Your task to perform on an android device: toggle javascript in the chrome app Image 0: 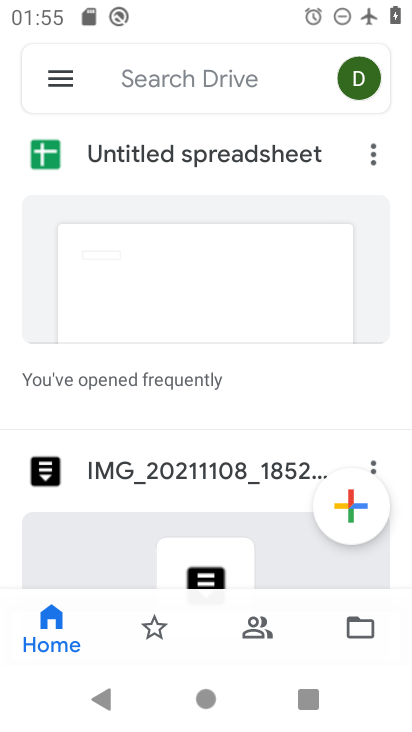
Step 0: press home button
Your task to perform on an android device: toggle javascript in the chrome app Image 1: 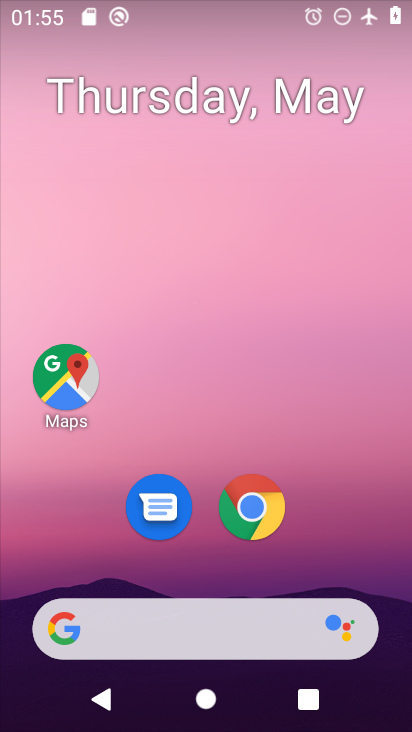
Step 1: click (254, 517)
Your task to perform on an android device: toggle javascript in the chrome app Image 2: 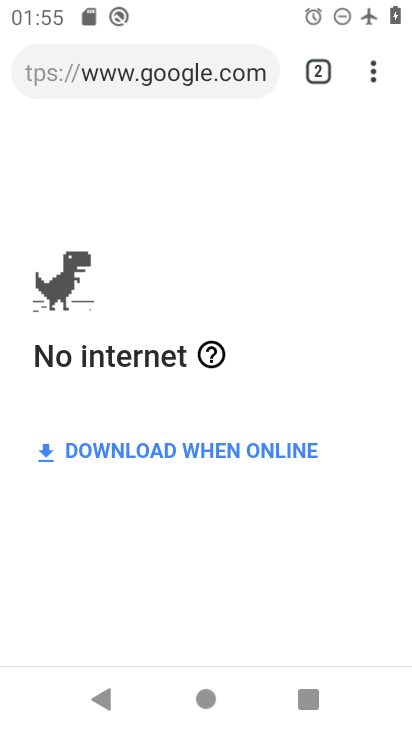
Step 2: click (380, 70)
Your task to perform on an android device: toggle javascript in the chrome app Image 3: 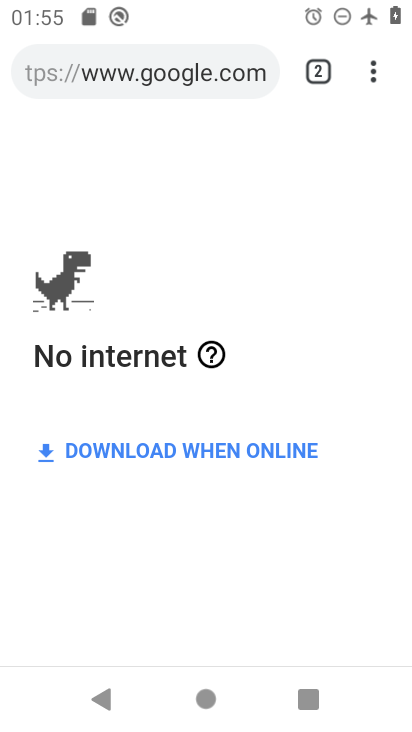
Step 3: click (373, 81)
Your task to perform on an android device: toggle javascript in the chrome app Image 4: 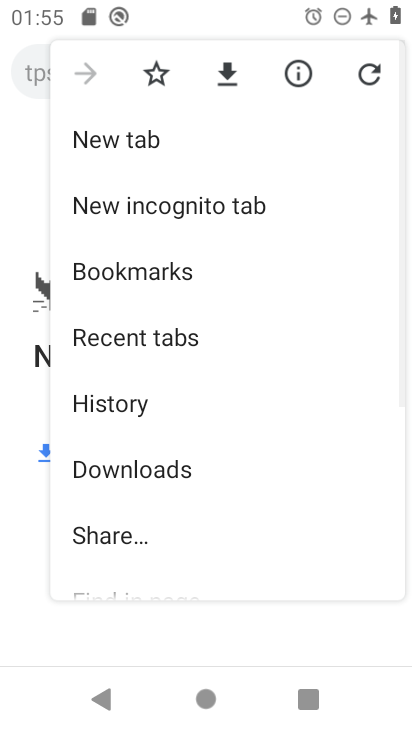
Step 4: drag from (82, 548) to (76, 286)
Your task to perform on an android device: toggle javascript in the chrome app Image 5: 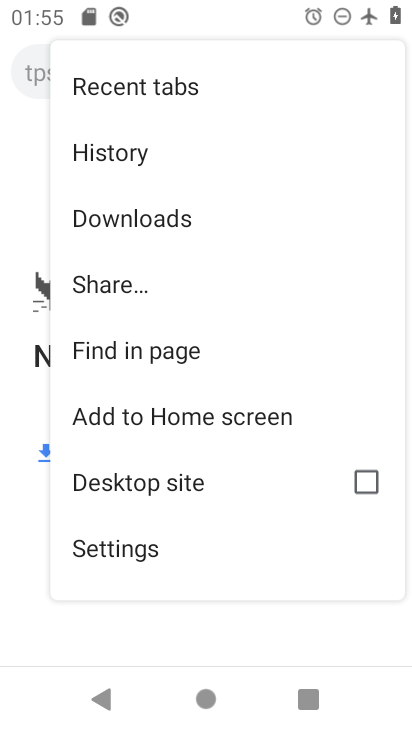
Step 5: click (107, 552)
Your task to perform on an android device: toggle javascript in the chrome app Image 6: 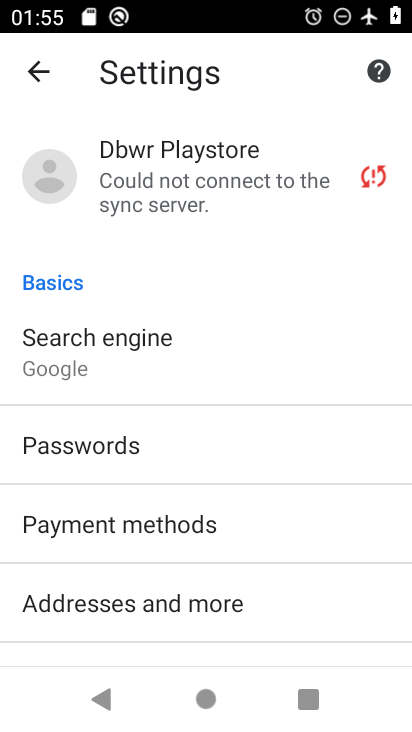
Step 6: drag from (107, 552) to (108, 288)
Your task to perform on an android device: toggle javascript in the chrome app Image 7: 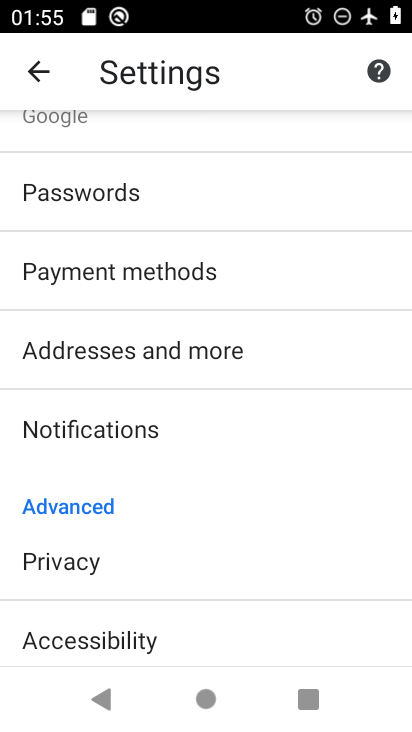
Step 7: drag from (156, 483) to (156, 372)
Your task to perform on an android device: toggle javascript in the chrome app Image 8: 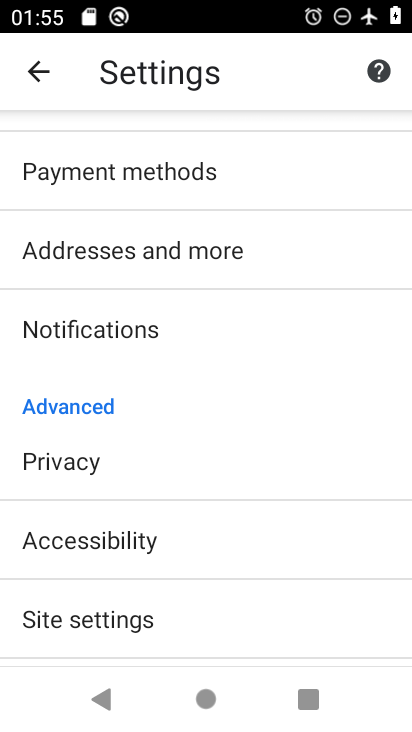
Step 8: click (176, 597)
Your task to perform on an android device: toggle javascript in the chrome app Image 9: 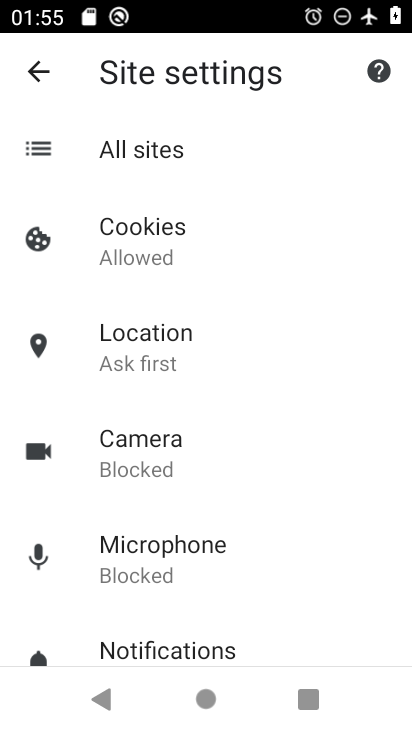
Step 9: drag from (176, 597) to (164, 358)
Your task to perform on an android device: toggle javascript in the chrome app Image 10: 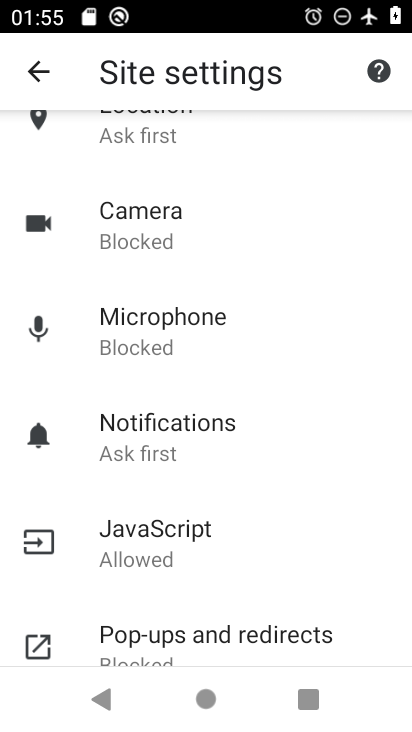
Step 10: click (197, 553)
Your task to perform on an android device: toggle javascript in the chrome app Image 11: 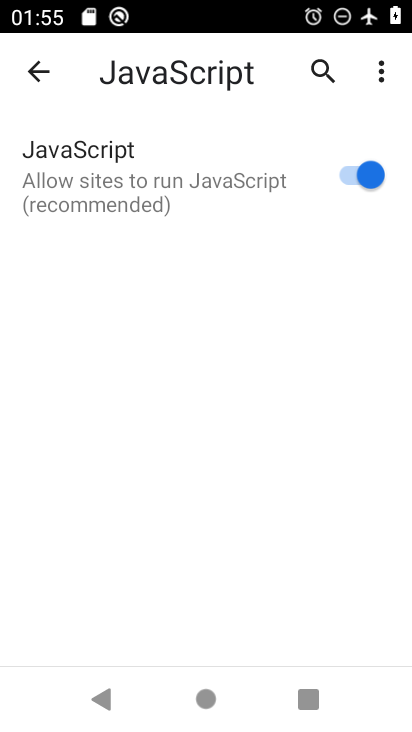
Step 11: click (371, 189)
Your task to perform on an android device: toggle javascript in the chrome app Image 12: 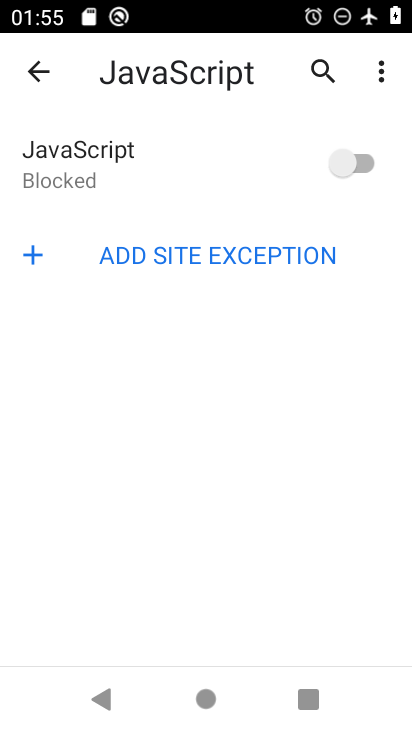
Step 12: task complete